Your task to perform on an android device: Go to eBay Image 0: 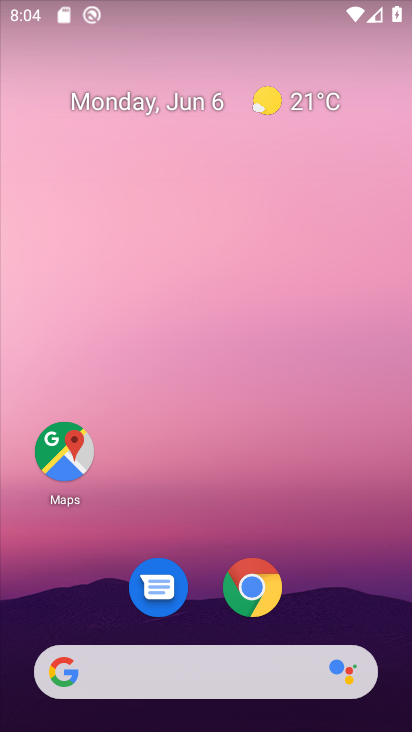
Step 0: drag from (316, 555) to (282, 162)
Your task to perform on an android device: Go to eBay Image 1: 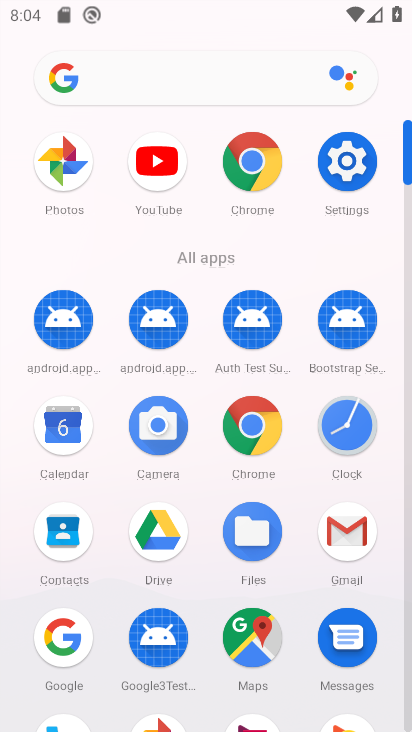
Step 1: click (263, 423)
Your task to perform on an android device: Go to eBay Image 2: 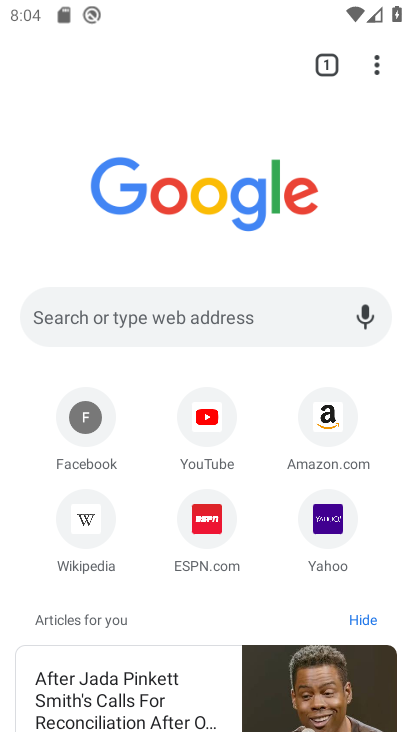
Step 2: click (240, 320)
Your task to perform on an android device: Go to eBay Image 3: 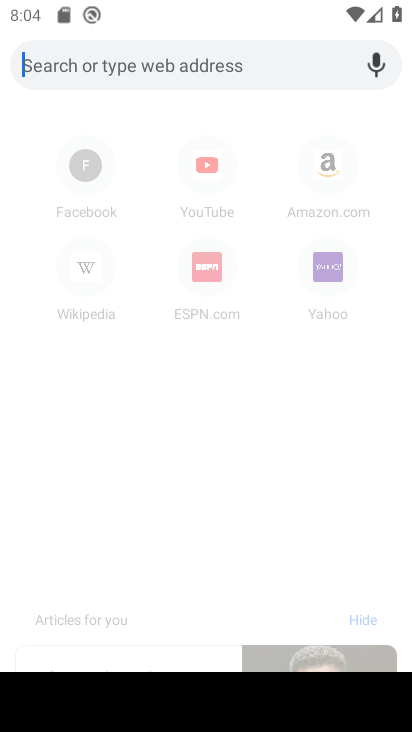
Step 3: type "ebay"
Your task to perform on an android device: Go to eBay Image 4: 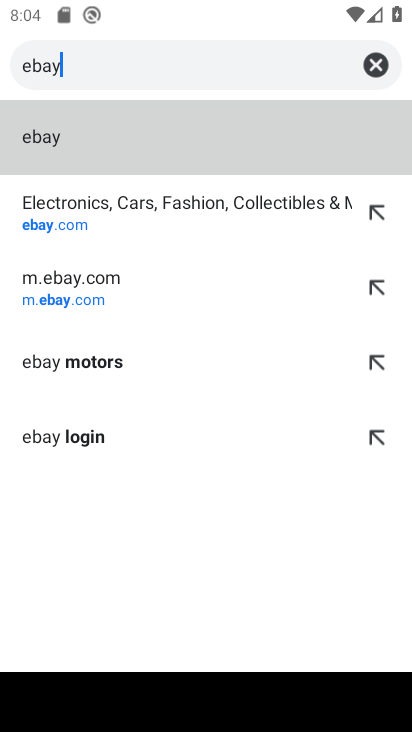
Step 4: click (92, 132)
Your task to perform on an android device: Go to eBay Image 5: 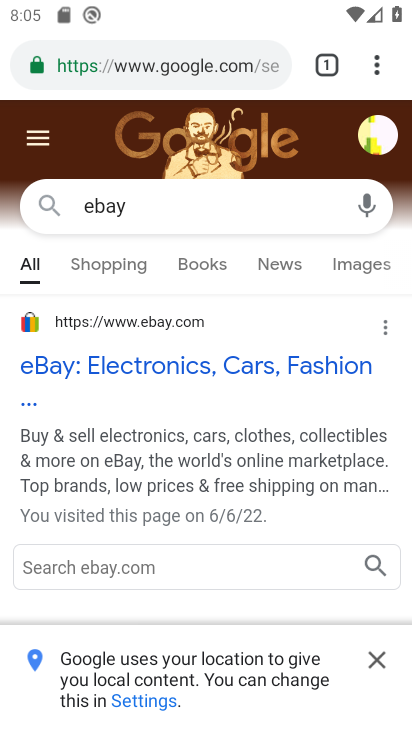
Step 5: click (252, 378)
Your task to perform on an android device: Go to eBay Image 6: 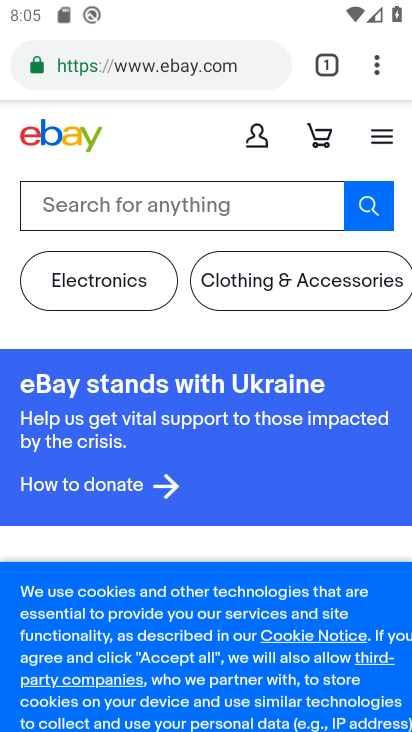
Step 6: task complete